Your task to perform on an android device: toggle sleep mode Image 0: 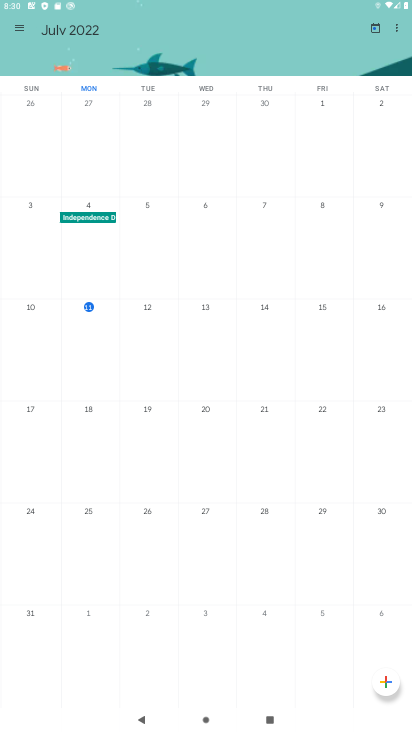
Step 0: press home button
Your task to perform on an android device: toggle sleep mode Image 1: 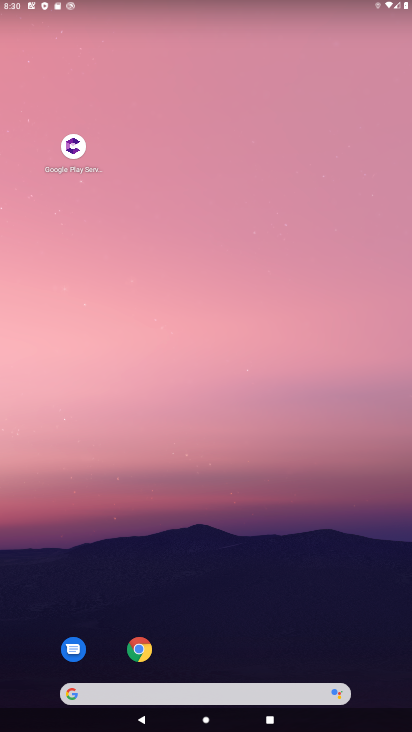
Step 1: drag from (182, 605) to (261, 152)
Your task to perform on an android device: toggle sleep mode Image 2: 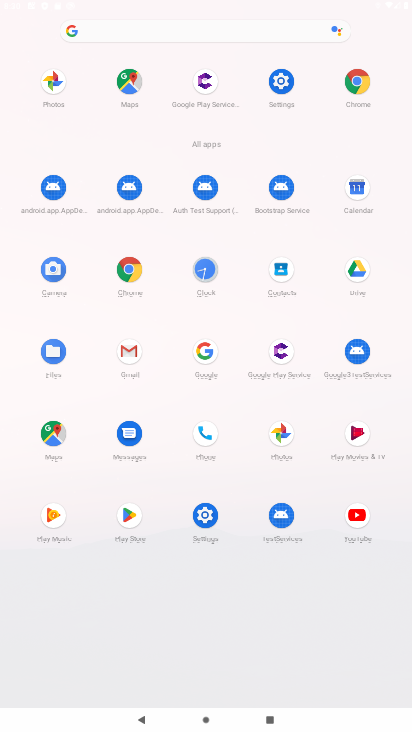
Step 2: click (207, 508)
Your task to perform on an android device: toggle sleep mode Image 3: 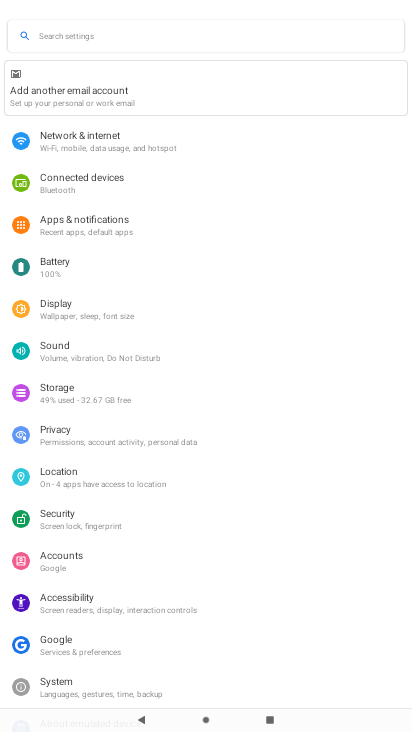
Step 3: click (95, 307)
Your task to perform on an android device: toggle sleep mode Image 4: 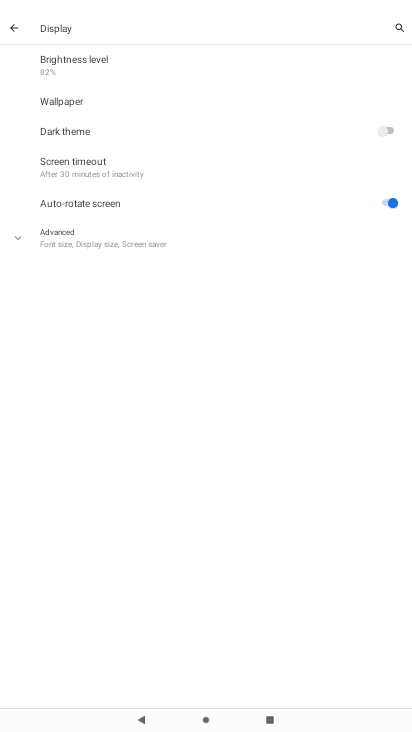
Step 4: click (125, 241)
Your task to perform on an android device: toggle sleep mode Image 5: 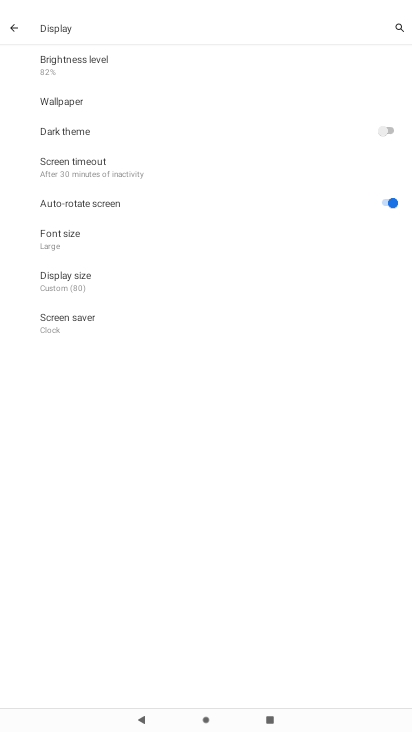
Step 5: task complete